Your task to perform on an android device: Open Youtube and go to "Your channel" Image 0: 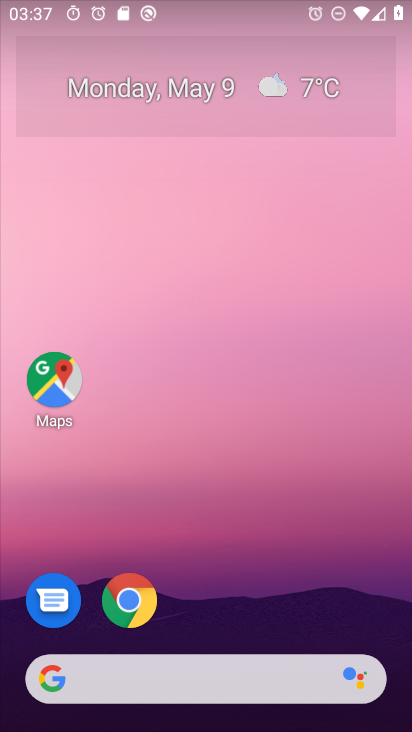
Step 0: drag from (244, 652) to (195, 234)
Your task to perform on an android device: Open Youtube and go to "Your channel" Image 1: 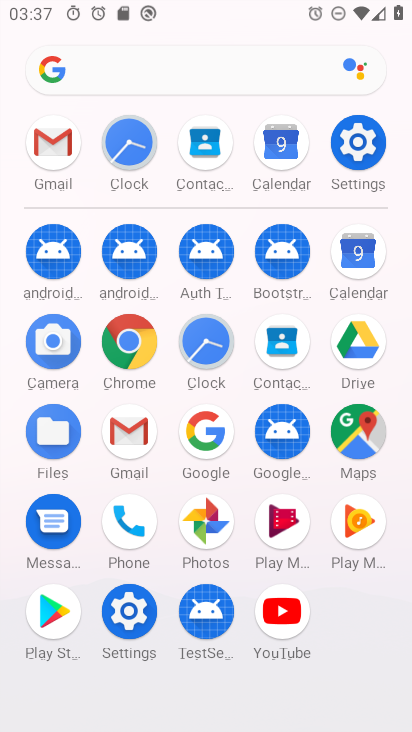
Step 1: click (293, 607)
Your task to perform on an android device: Open Youtube and go to "Your channel" Image 2: 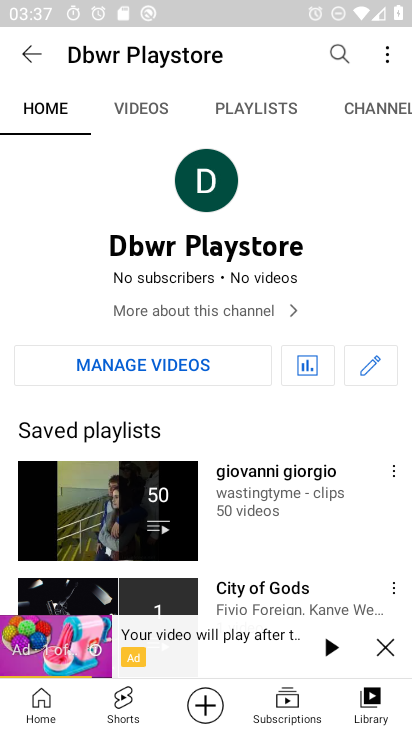
Step 2: task complete